Your task to perform on an android device: set the stopwatch Image 0: 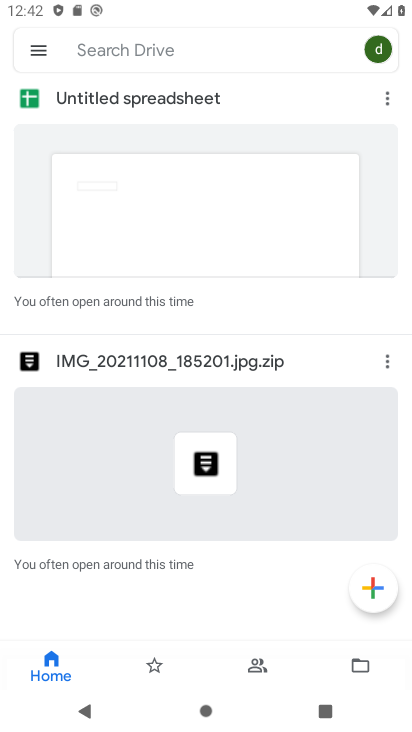
Step 0: press home button
Your task to perform on an android device: set the stopwatch Image 1: 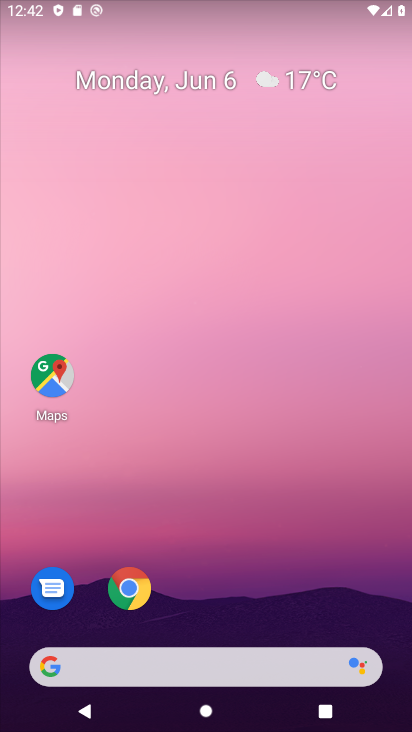
Step 1: drag from (227, 509) to (263, 173)
Your task to perform on an android device: set the stopwatch Image 2: 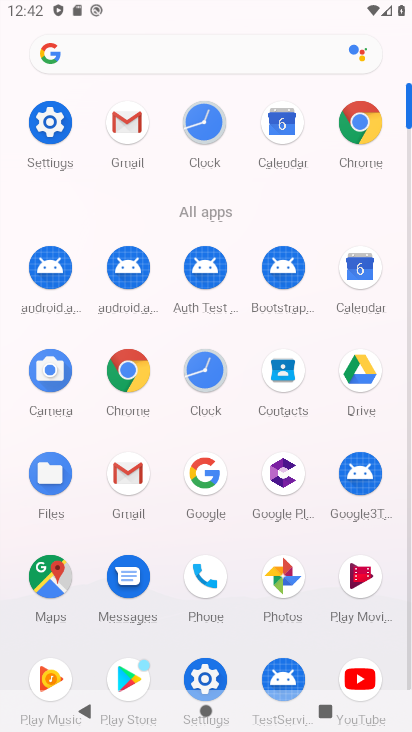
Step 2: click (204, 371)
Your task to perform on an android device: set the stopwatch Image 3: 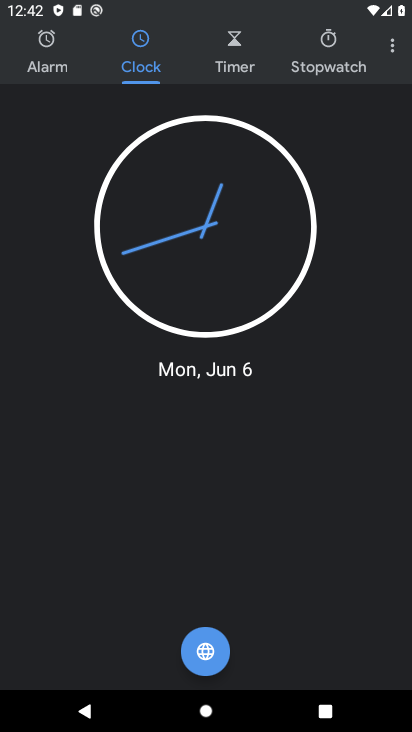
Step 3: click (344, 50)
Your task to perform on an android device: set the stopwatch Image 4: 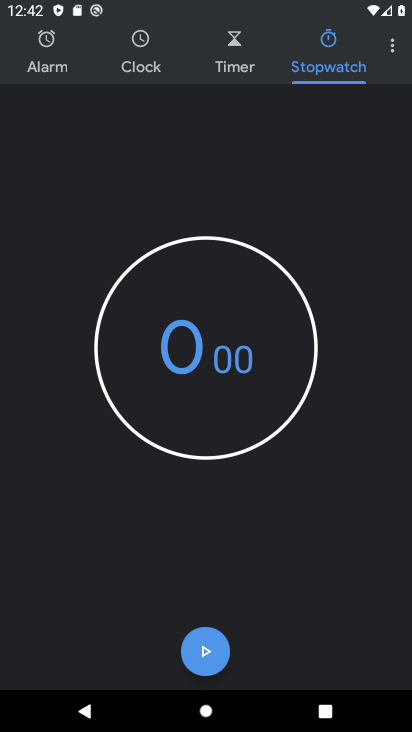
Step 4: click (211, 640)
Your task to perform on an android device: set the stopwatch Image 5: 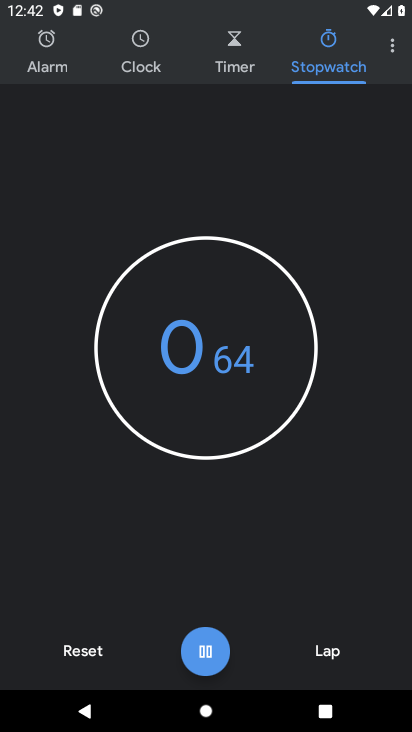
Step 5: click (211, 639)
Your task to perform on an android device: set the stopwatch Image 6: 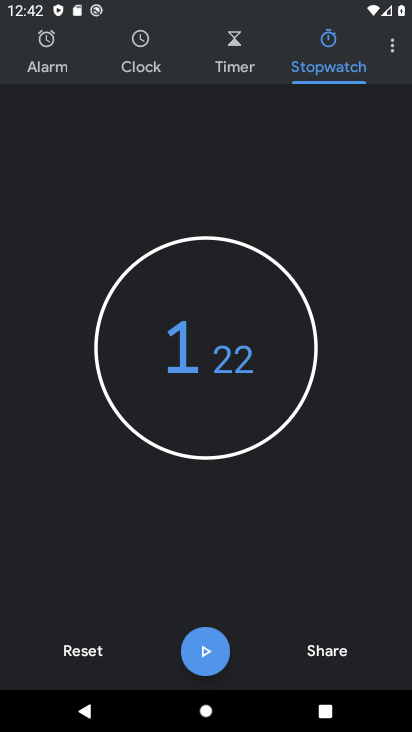
Step 6: task complete